Your task to perform on an android device: Open the stopwatch Image 0: 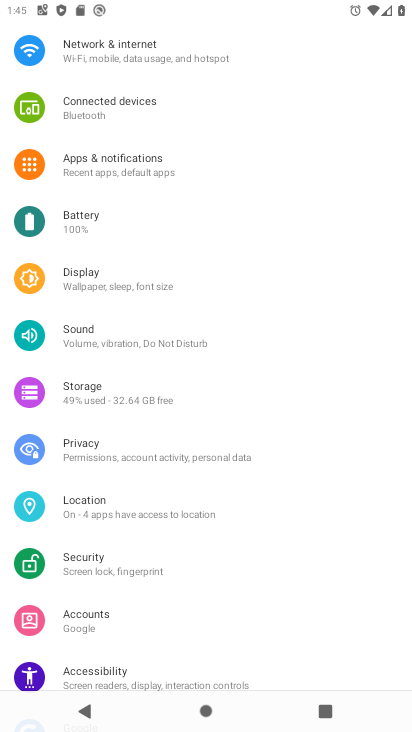
Step 0: press home button
Your task to perform on an android device: Open the stopwatch Image 1: 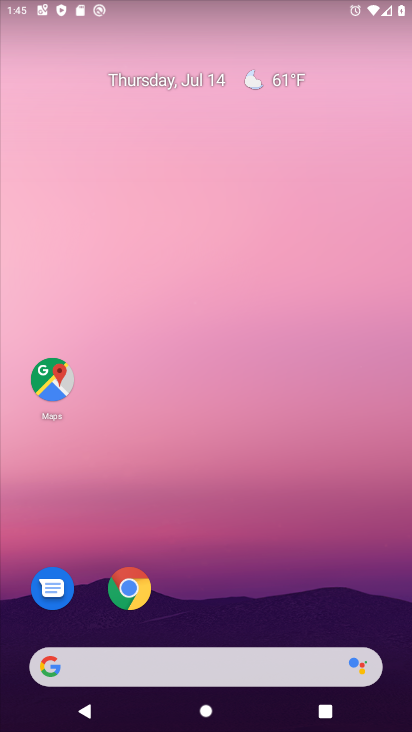
Step 1: drag from (254, 607) to (233, 221)
Your task to perform on an android device: Open the stopwatch Image 2: 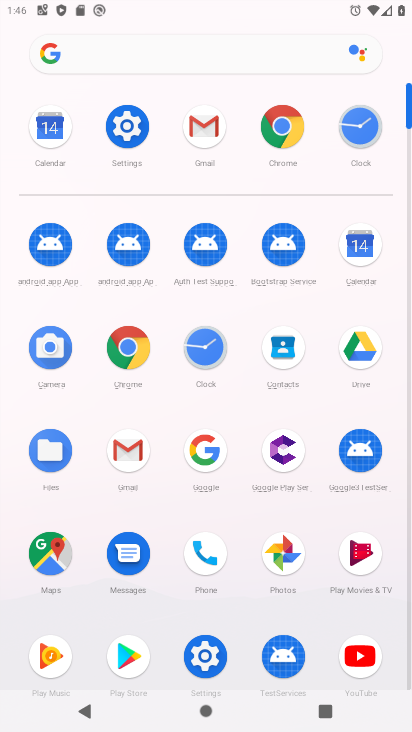
Step 2: click (199, 350)
Your task to perform on an android device: Open the stopwatch Image 3: 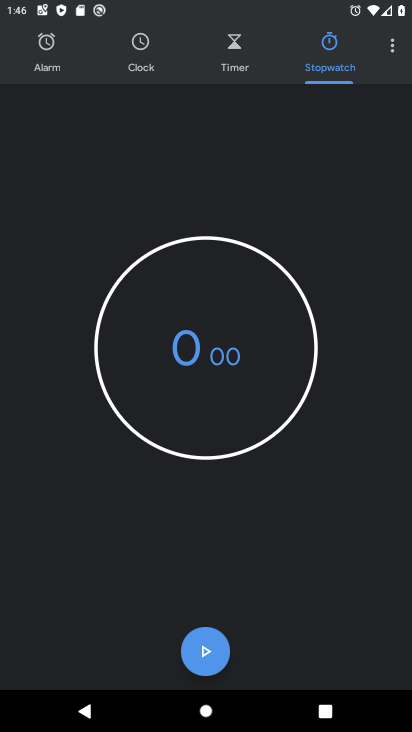
Step 3: task complete